Your task to perform on an android device: turn off smart reply in the gmail app Image 0: 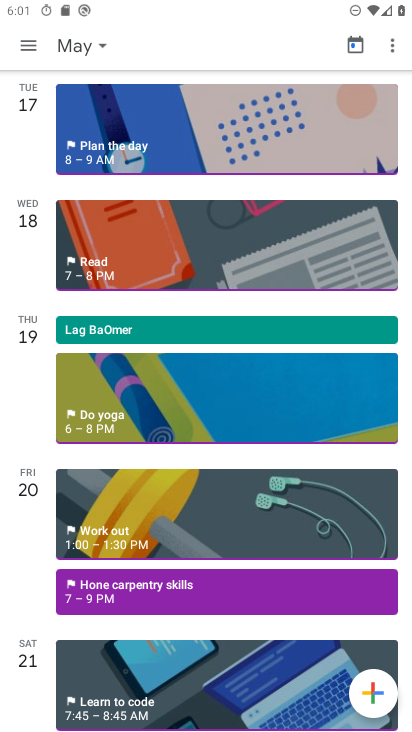
Step 0: press home button
Your task to perform on an android device: turn off smart reply in the gmail app Image 1: 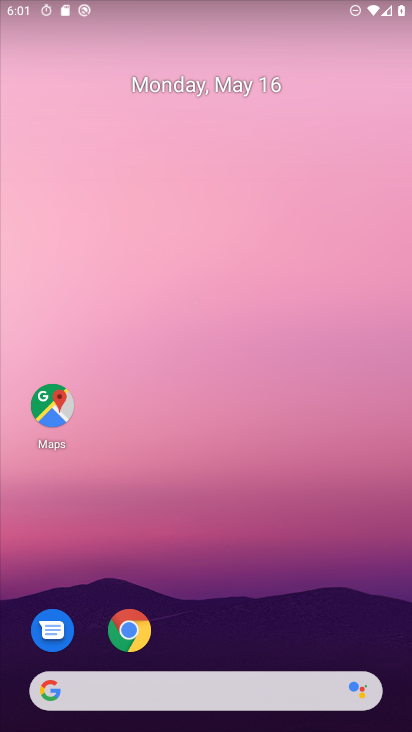
Step 1: drag from (272, 580) to (293, 44)
Your task to perform on an android device: turn off smart reply in the gmail app Image 2: 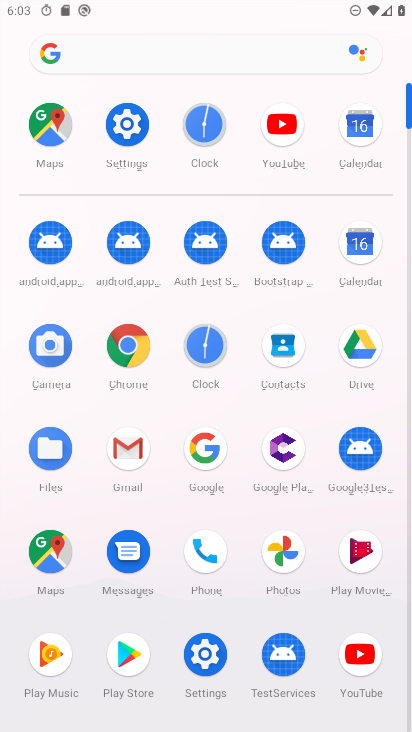
Step 2: click (137, 470)
Your task to perform on an android device: turn off smart reply in the gmail app Image 3: 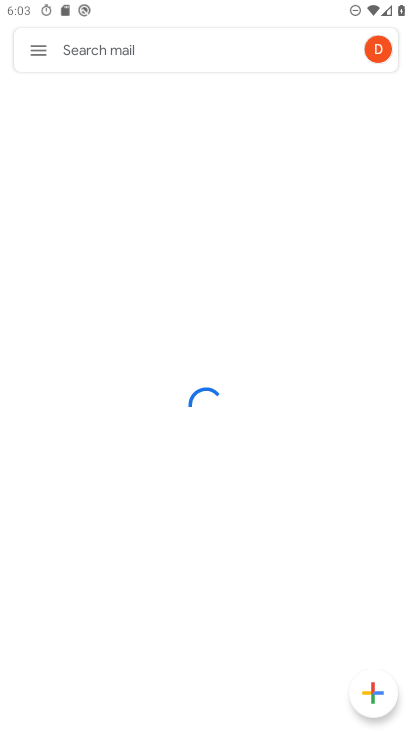
Step 3: click (42, 47)
Your task to perform on an android device: turn off smart reply in the gmail app Image 4: 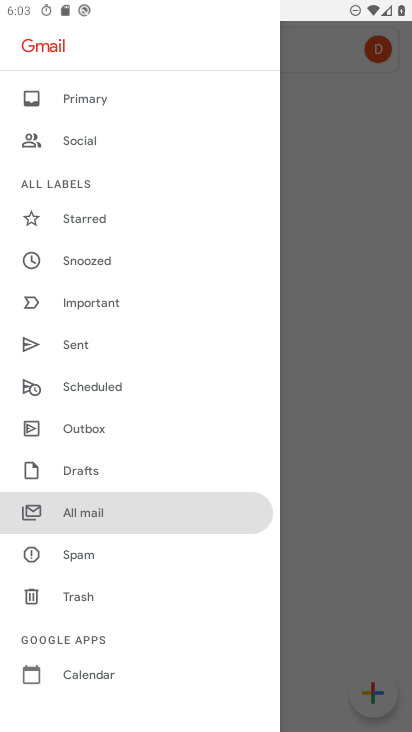
Step 4: drag from (34, 202) to (70, 467)
Your task to perform on an android device: turn off smart reply in the gmail app Image 5: 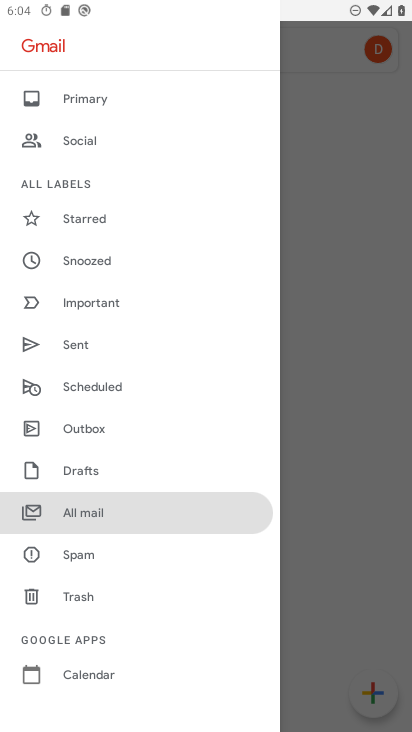
Step 5: drag from (143, 663) to (77, 292)
Your task to perform on an android device: turn off smart reply in the gmail app Image 6: 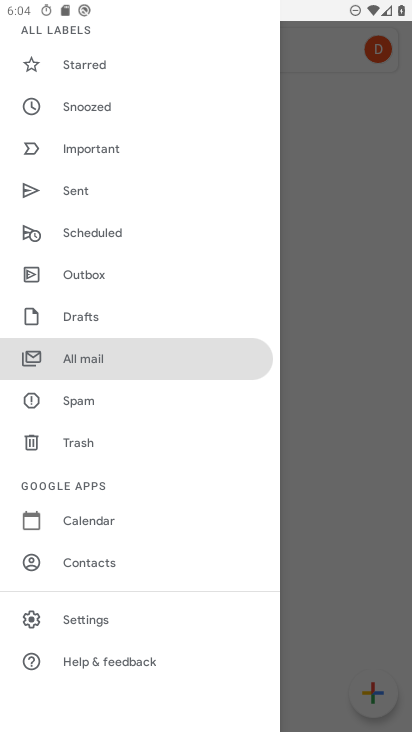
Step 6: click (93, 588)
Your task to perform on an android device: turn off smart reply in the gmail app Image 7: 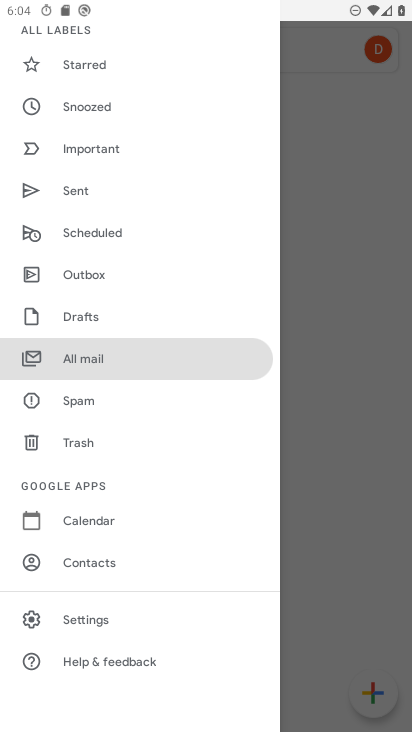
Step 7: click (94, 620)
Your task to perform on an android device: turn off smart reply in the gmail app Image 8: 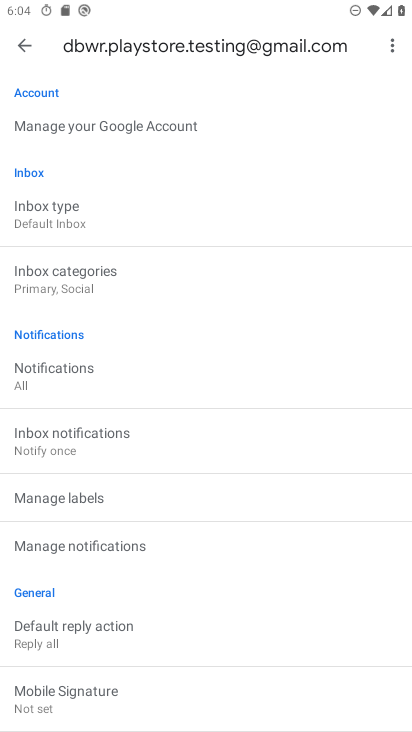
Step 8: drag from (87, 612) to (120, 117)
Your task to perform on an android device: turn off smart reply in the gmail app Image 9: 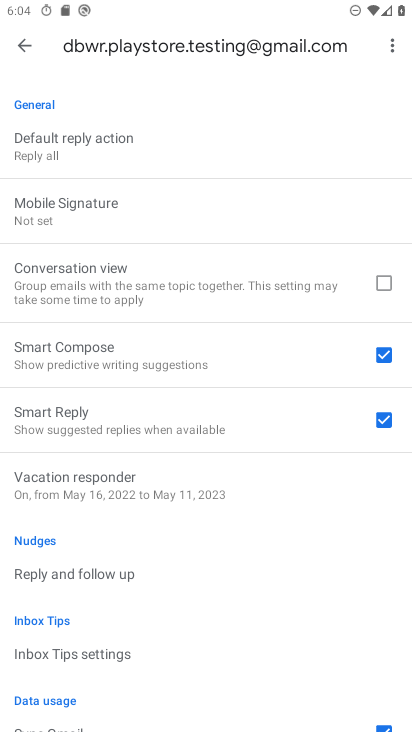
Step 9: click (75, 430)
Your task to perform on an android device: turn off smart reply in the gmail app Image 10: 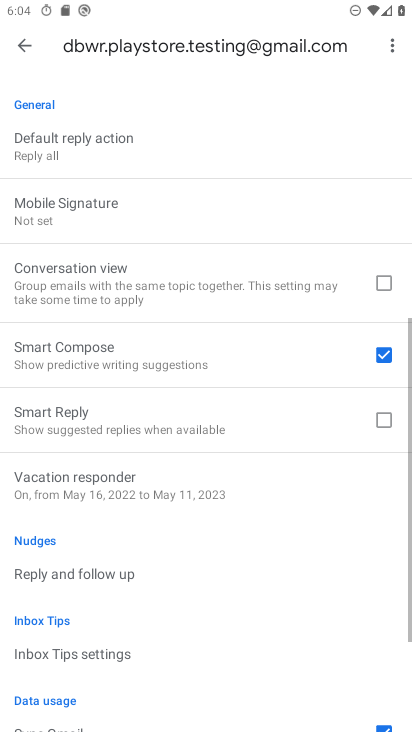
Step 10: task complete